Your task to perform on an android device: clear history in the chrome app Image 0: 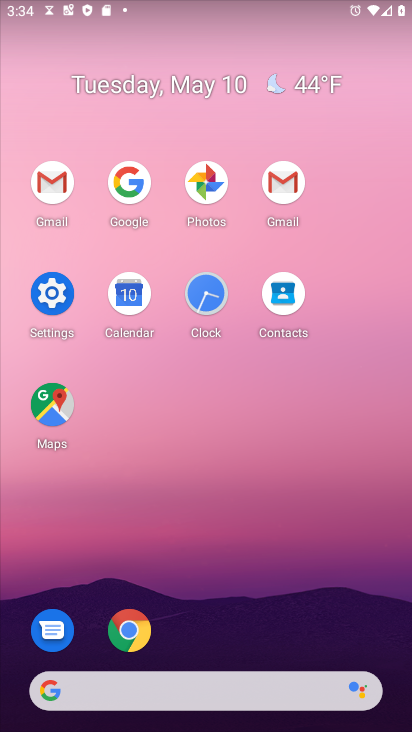
Step 0: click (131, 635)
Your task to perform on an android device: clear history in the chrome app Image 1: 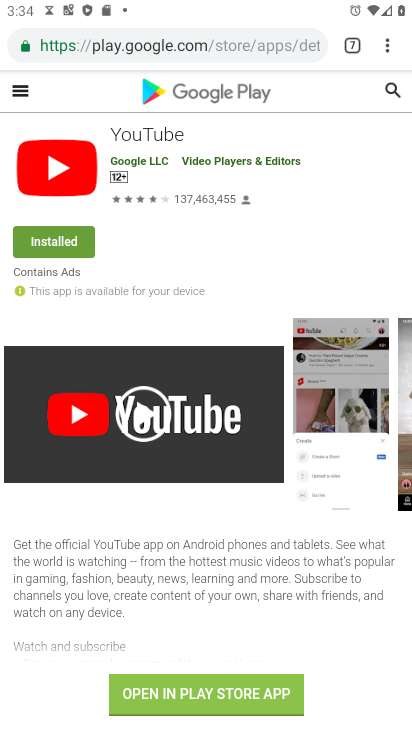
Step 1: click (389, 49)
Your task to perform on an android device: clear history in the chrome app Image 2: 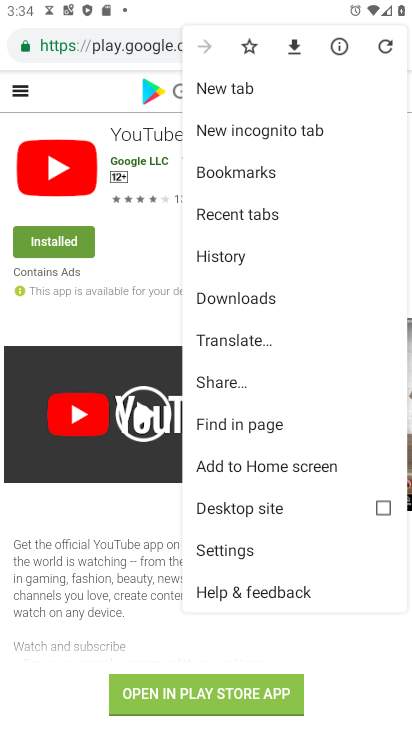
Step 2: click (248, 248)
Your task to perform on an android device: clear history in the chrome app Image 3: 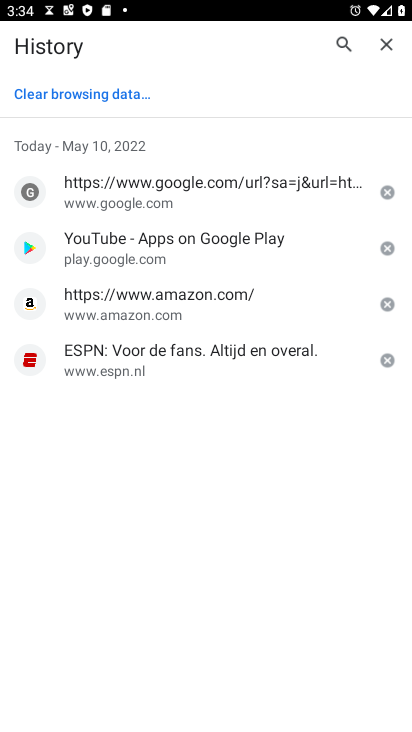
Step 3: click (83, 91)
Your task to perform on an android device: clear history in the chrome app Image 4: 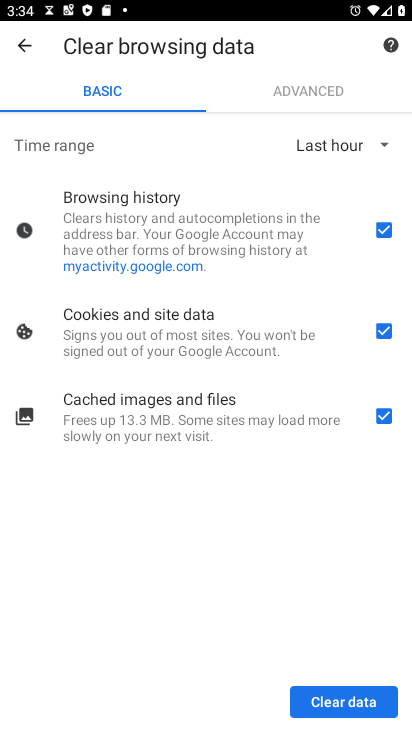
Step 4: click (360, 700)
Your task to perform on an android device: clear history in the chrome app Image 5: 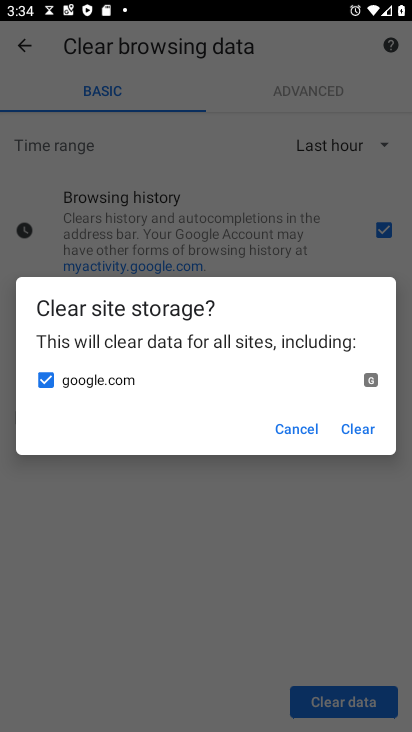
Step 5: click (345, 419)
Your task to perform on an android device: clear history in the chrome app Image 6: 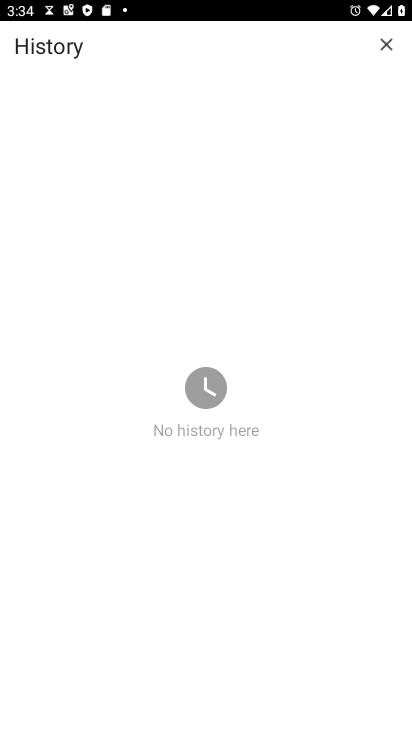
Step 6: task complete